Your task to perform on an android device: Go to eBay Image 0: 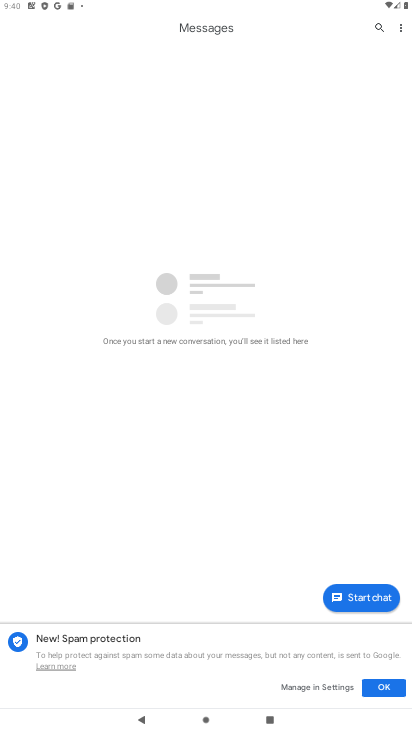
Step 0: press home button
Your task to perform on an android device: Go to eBay Image 1: 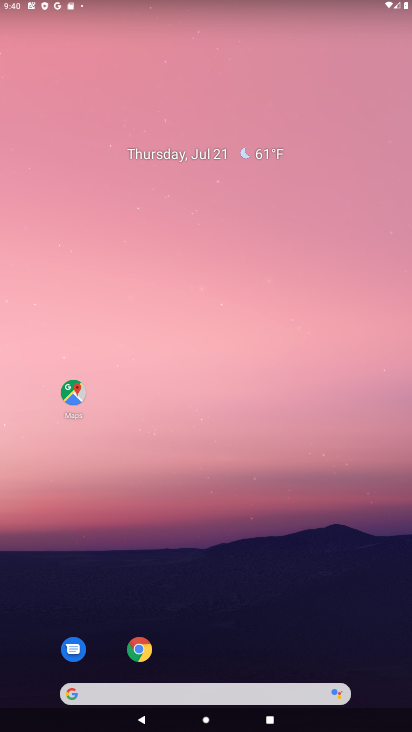
Step 1: click (139, 649)
Your task to perform on an android device: Go to eBay Image 2: 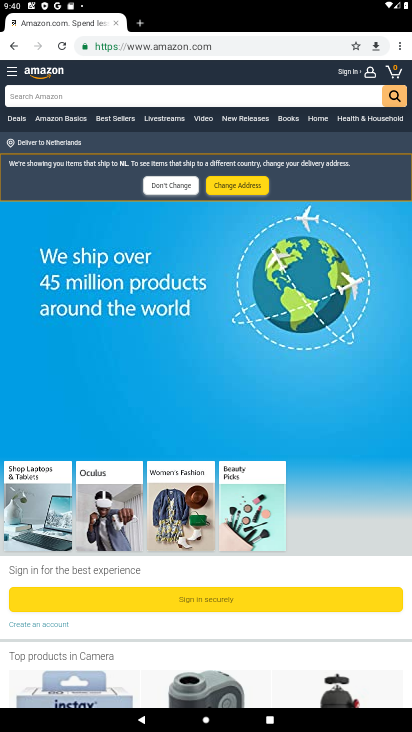
Step 2: click (305, 50)
Your task to perform on an android device: Go to eBay Image 3: 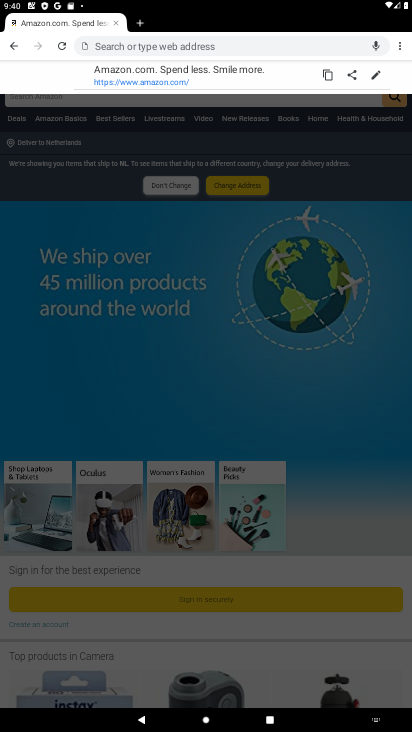
Step 3: type "eBay"
Your task to perform on an android device: Go to eBay Image 4: 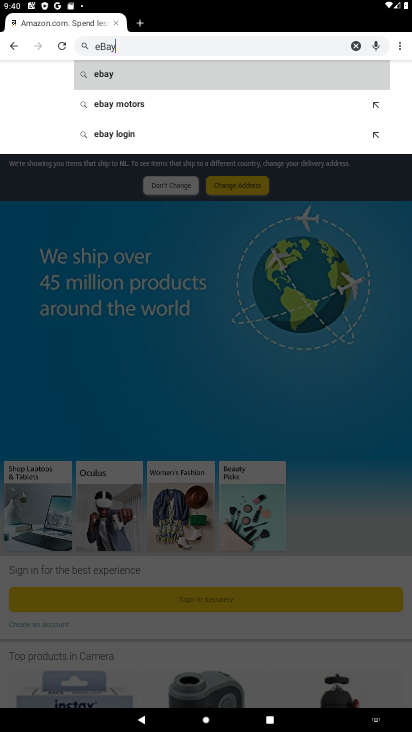
Step 4: click (122, 78)
Your task to perform on an android device: Go to eBay Image 5: 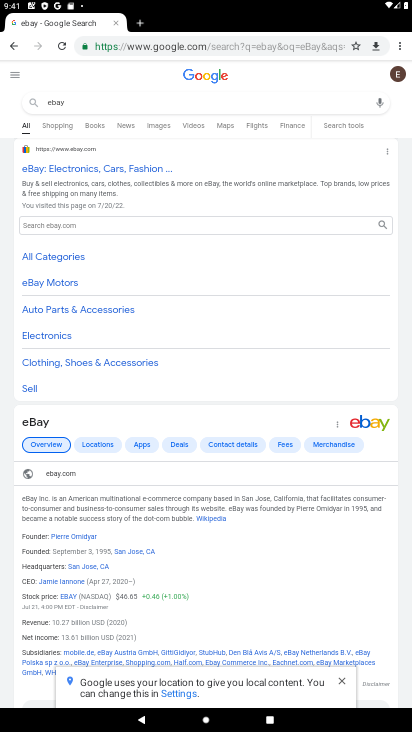
Step 5: click (102, 166)
Your task to perform on an android device: Go to eBay Image 6: 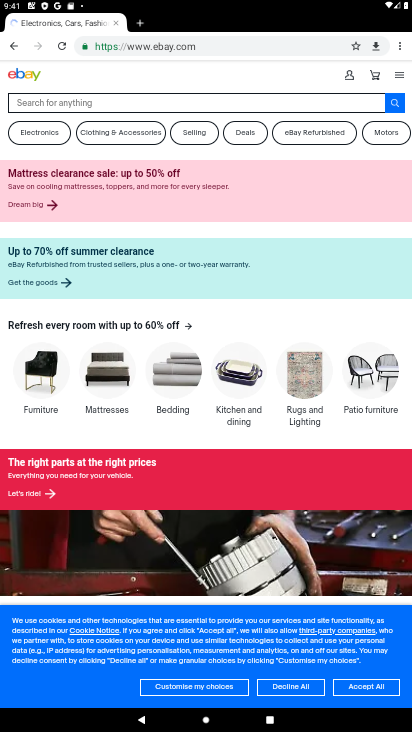
Step 6: click (374, 689)
Your task to perform on an android device: Go to eBay Image 7: 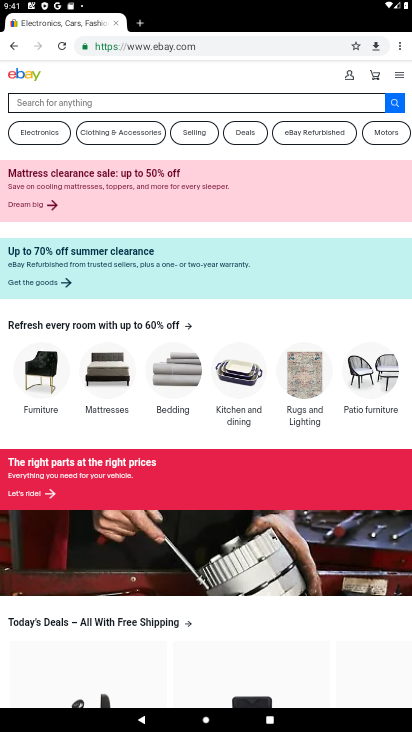
Step 7: task complete